Your task to perform on an android device: Open Google Chrome and open the bookmarks view Image 0: 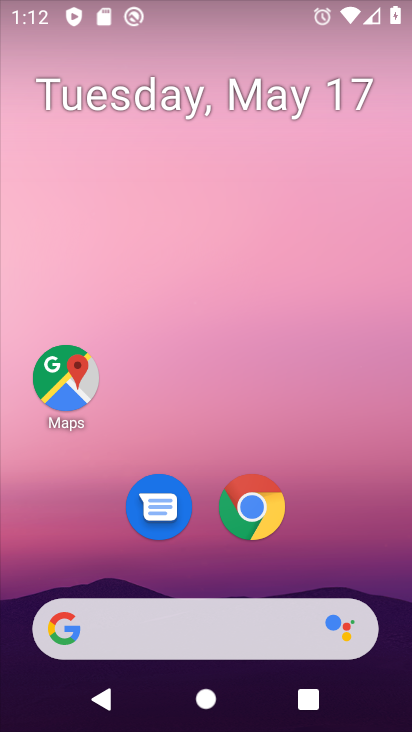
Step 0: click (234, 494)
Your task to perform on an android device: Open Google Chrome and open the bookmarks view Image 1: 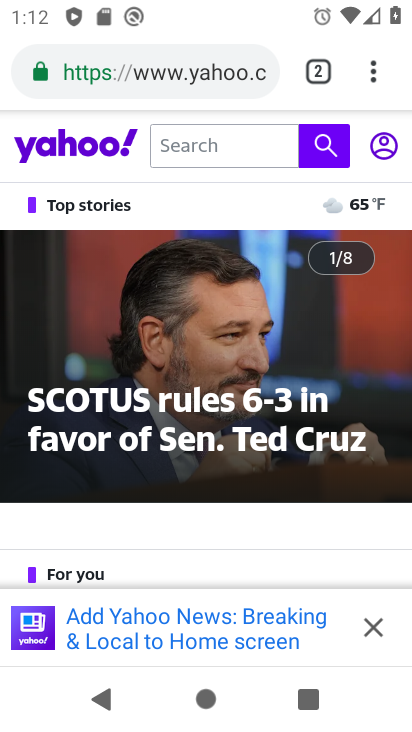
Step 1: click (384, 64)
Your task to perform on an android device: Open Google Chrome and open the bookmarks view Image 2: 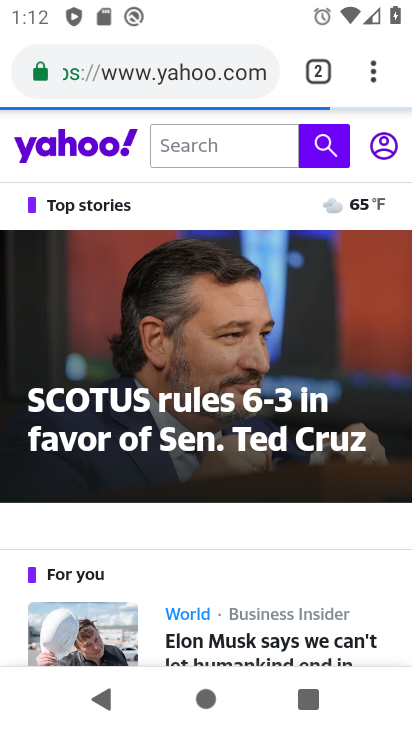
Step 2: click (366, 58)
Your task to perform on an android device: Open Google Chrome and open the bookmarks view Image 3: 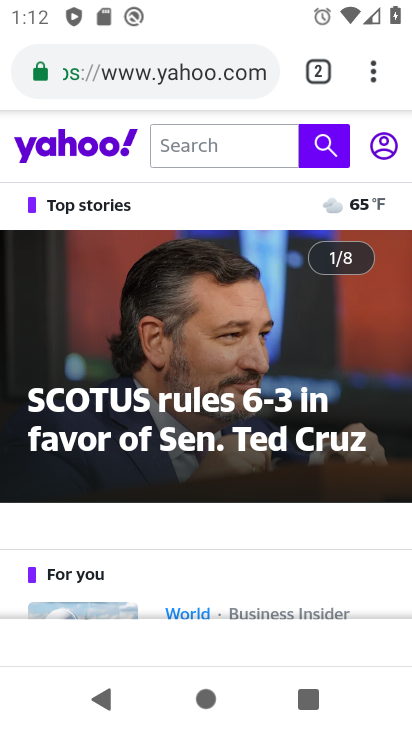
Step 3: click (368, 76)
Your task to perform on an android device: Open Google Chrome and open the bookmarks view Image 4: 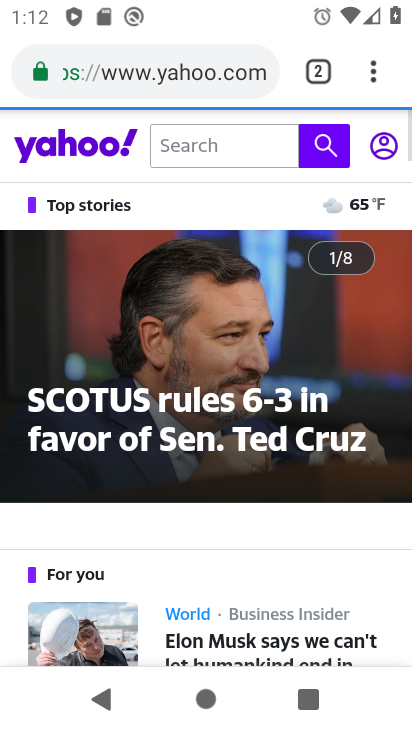
Step 4: click (368, 76)
Your task to perform on an android device: Open Google Chrome and open the bookmarks view Image 5: 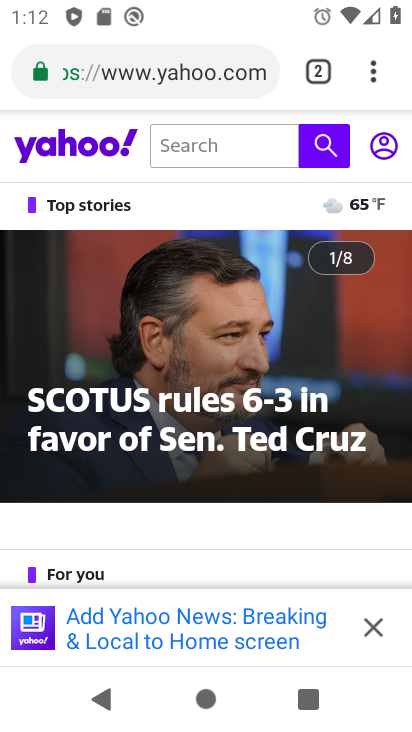
Step 5: click (377, 80)
Your task to perform on an android device: Open Google Chrome and open the bookmarks view Image 6: 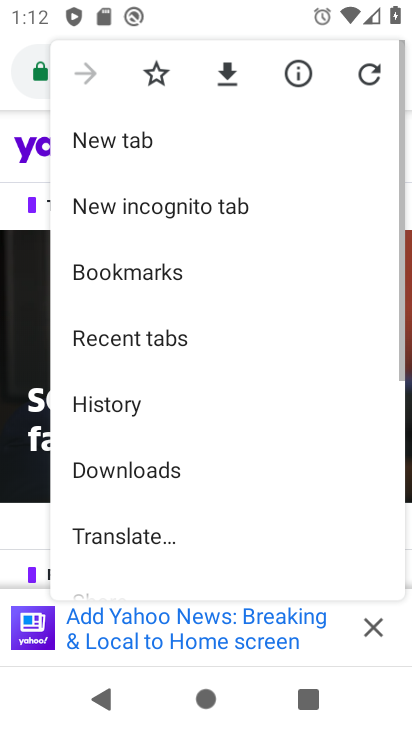
Step 6: drag from (214, 477) to (281, 162)
Your task to perform on an android device: Open Google Chrome and open the bookmarks view Image 7: 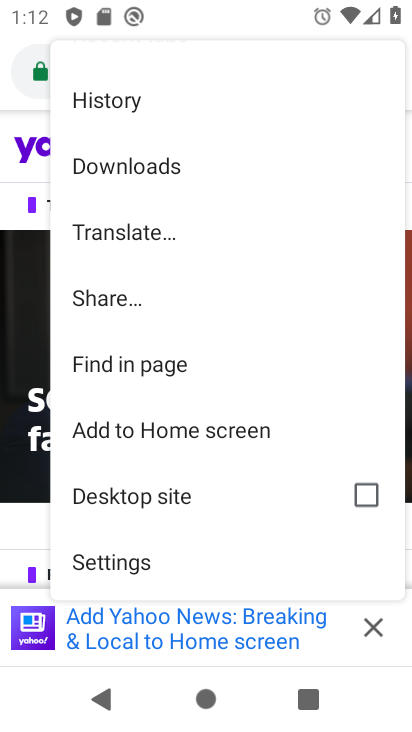
Step 7: drag from (191, 142) to (172, 563)
Your task to perform on an android device: Open Google Chrome and open the bookmarks view Image 8: 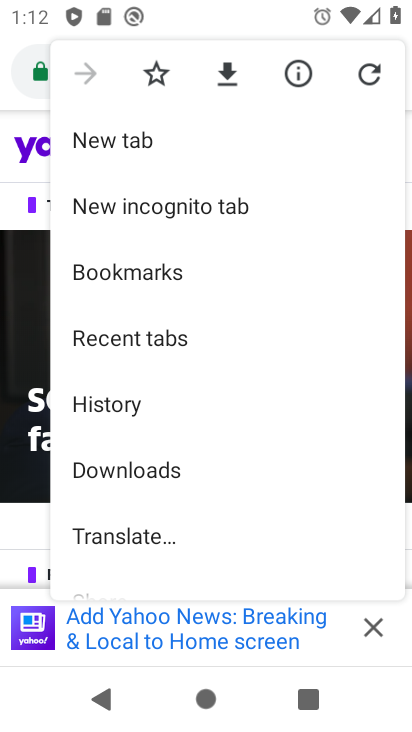
Step 8: click (177, 265)
Your task to perform on an android device: Open Google Chrome and open the bookmarks view Image 9: 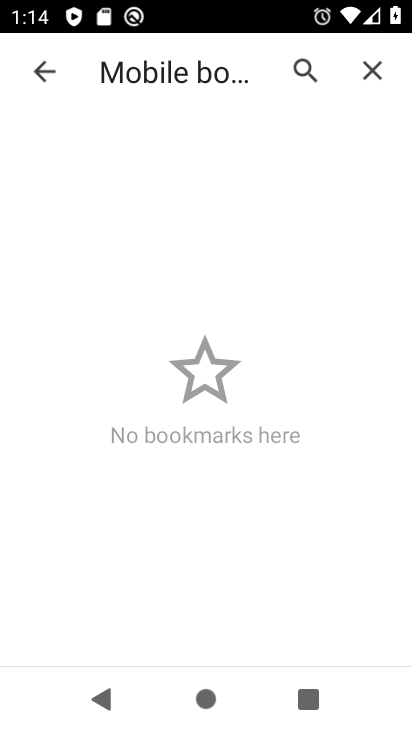
Step 9: task complete